Your task to perform on an android device: Go to location settings Image 0: 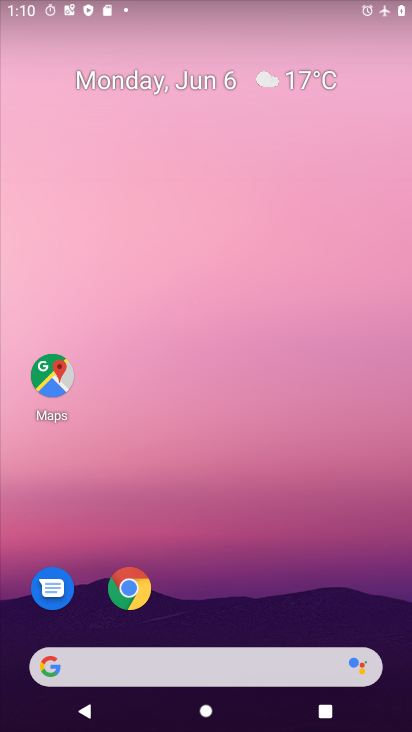
Step 0: drag from (266, 560) to (309, 101)
Your task to perform on an android device: Go to location settings Image 1: 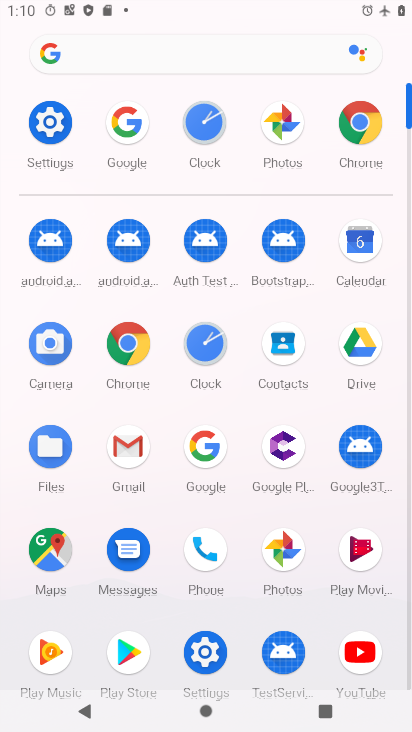
Step 1: click (53, 117)
Your task to perform on an android device: Go to location settings Image 2: 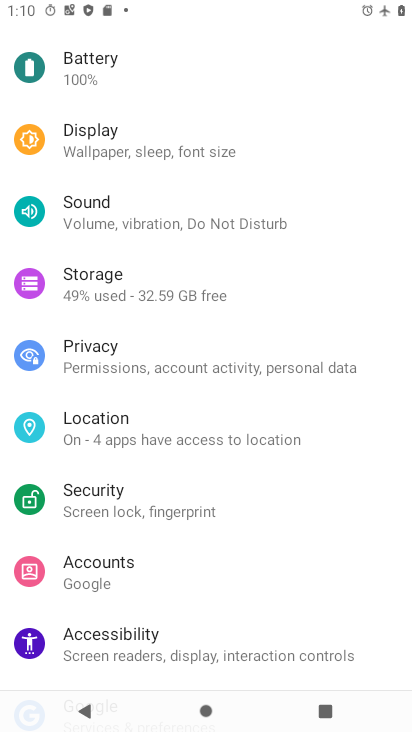
Step 2: click (198, 421)
Your task to perform on an android device: Go to location settings Image 3: 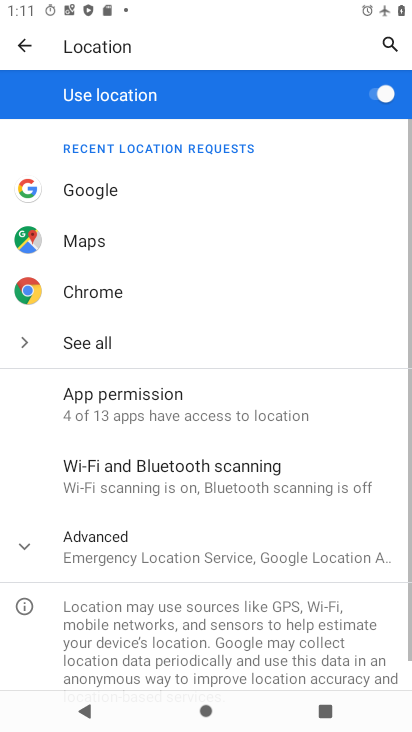
Step 3: task complete